Your task to perform on an android device: Go to Android settings Image 0: 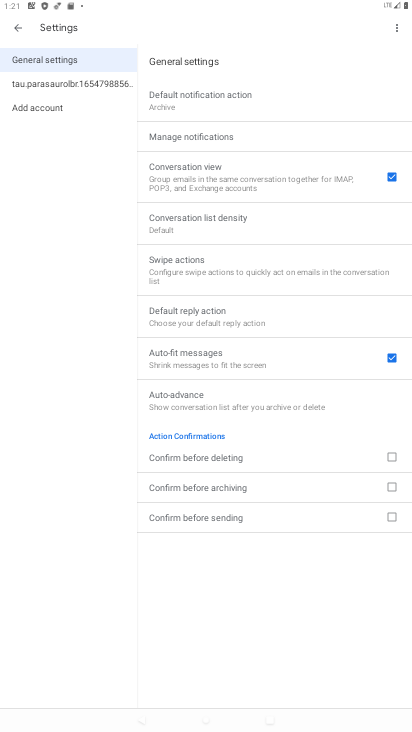
Step 0: press home button
Your task to perform on an android device: Go to Android settings Image 1: 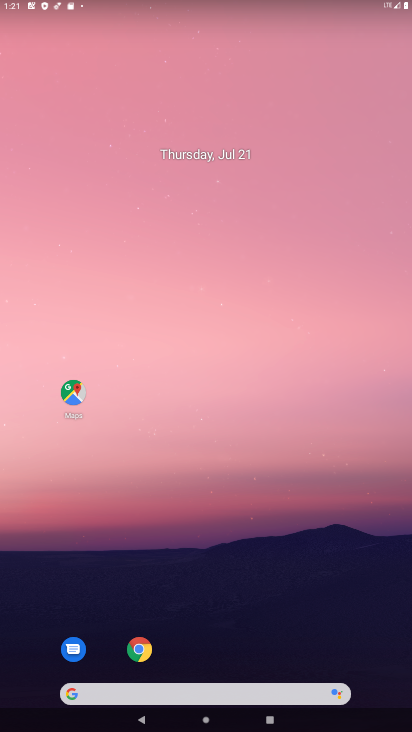
Step 1: drag from (223, 724) to (240, 173)
Your task to perform on an android device: Go to Android settings Image 2: 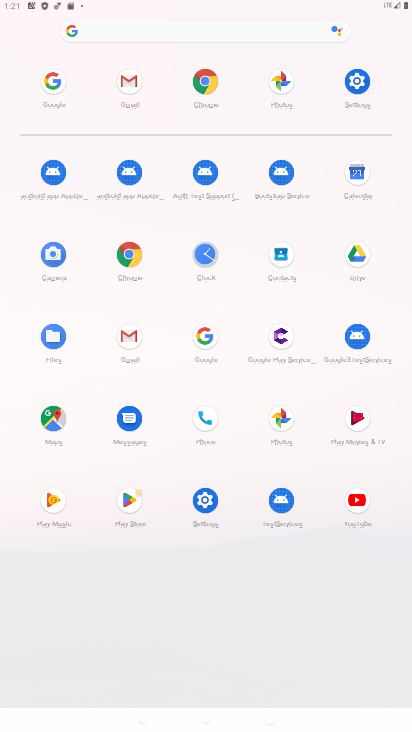
Step 2: click (359, 86)
Your task to perform on an android device: Go to Android settings Image 3: 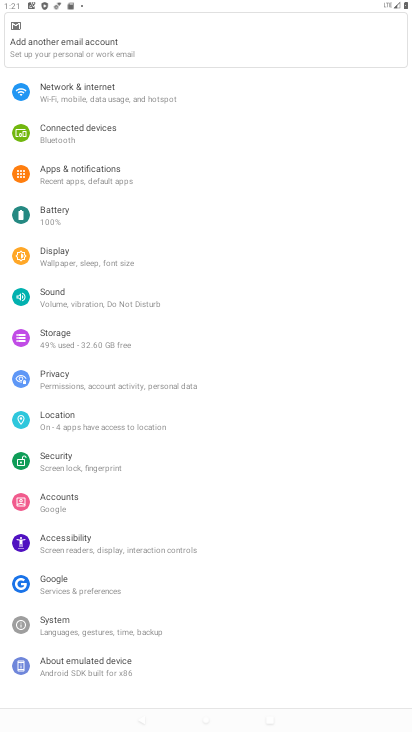
Step 3: task complete